Your task to perform on an android device: Open maps Image 0: 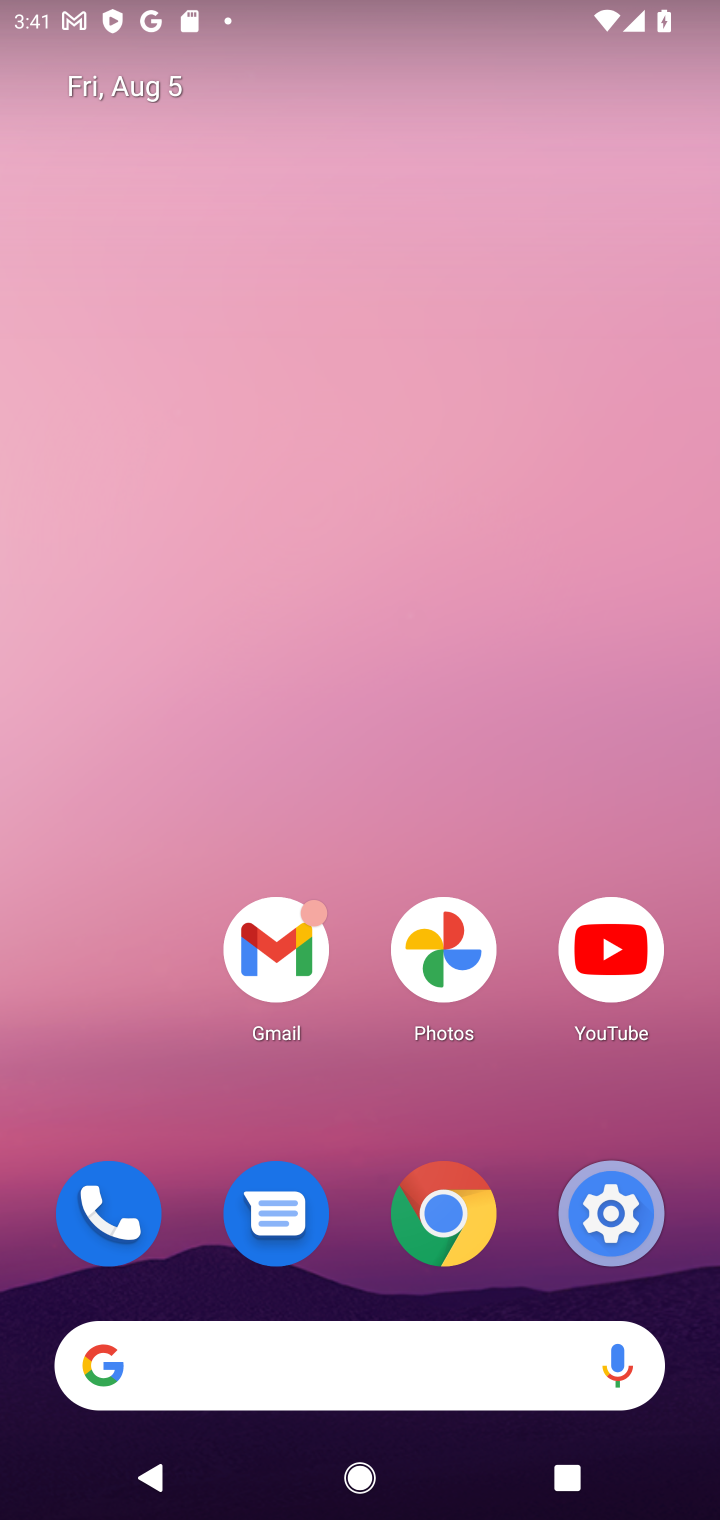
Step 0: drag from (374, 1094) to (422, 267)
Your task to perform on an android device: Open maps Image 1: 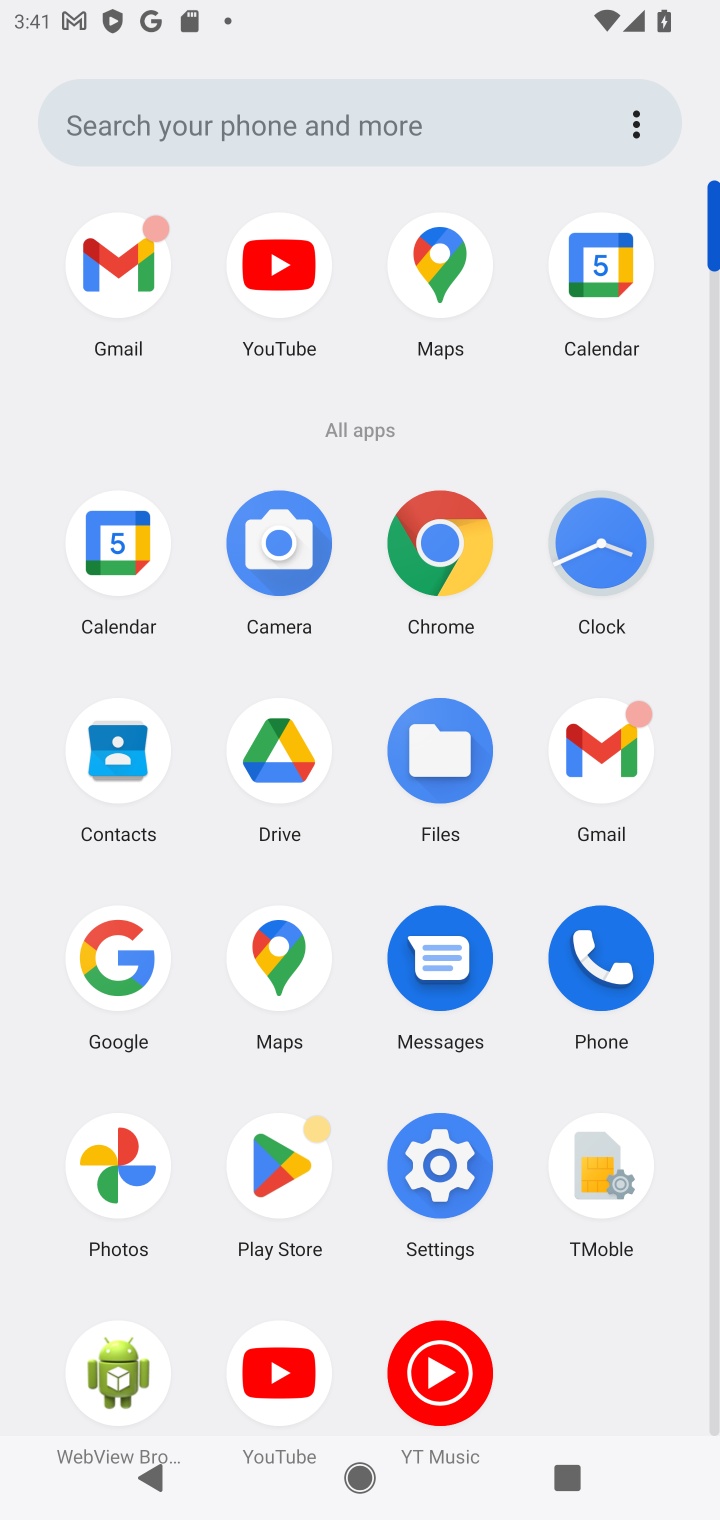
Step 1: click (434, 262)
Your task to perform on an android device: Open maps Image 2: 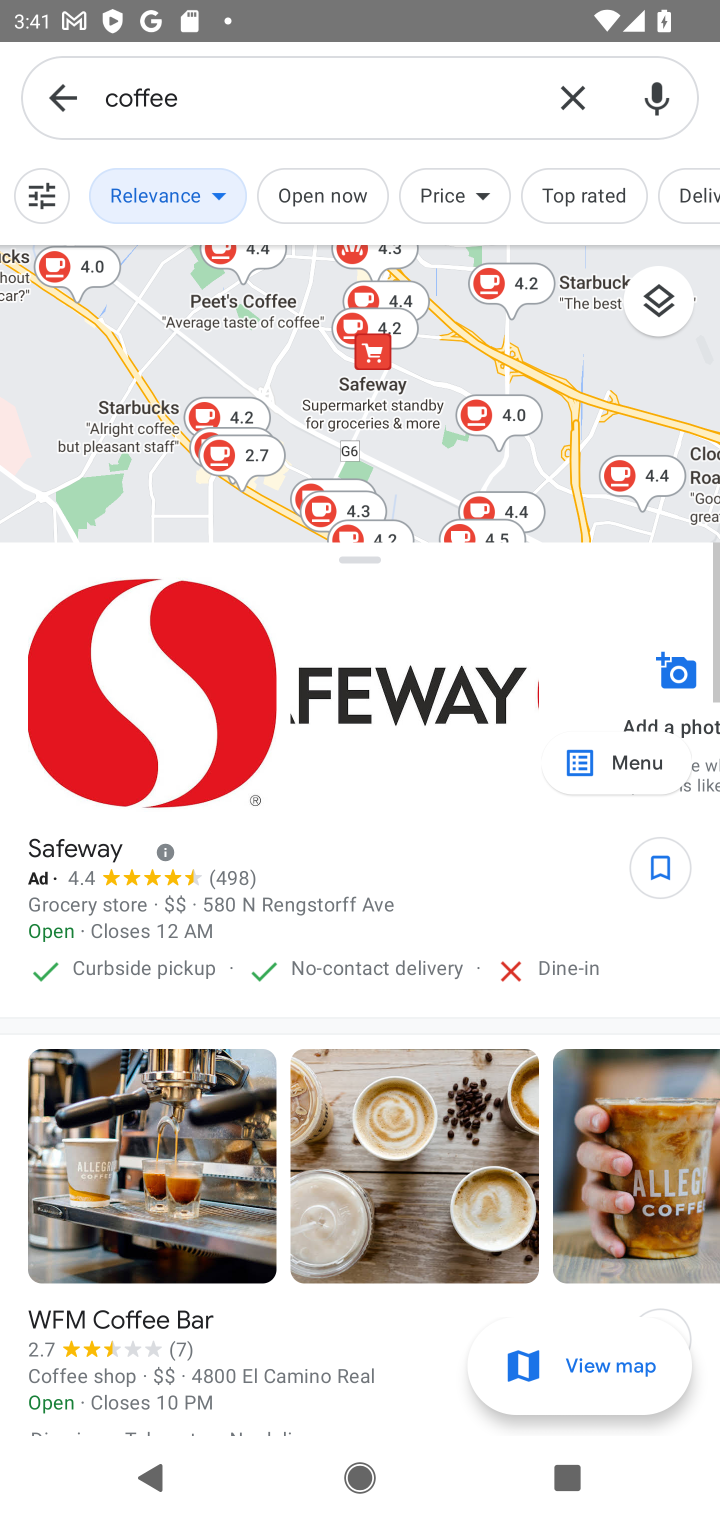
Step 2: task complete